Your task to perform on an android device: Look up the top rated headphones on Amazon. Image 0: 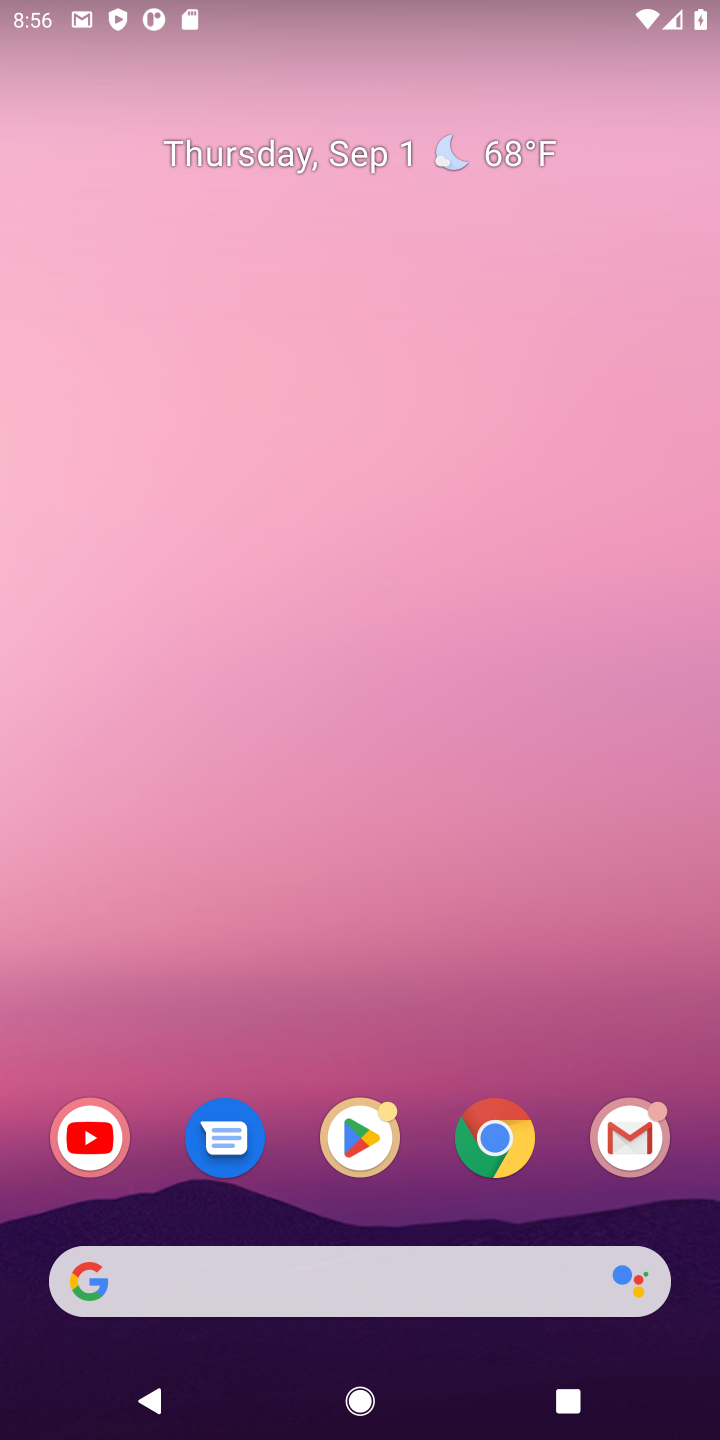
Step 0: click (500, 1162)
Your task to perform on an android device: Look up the top rated headphones on Amazon. Image 1: 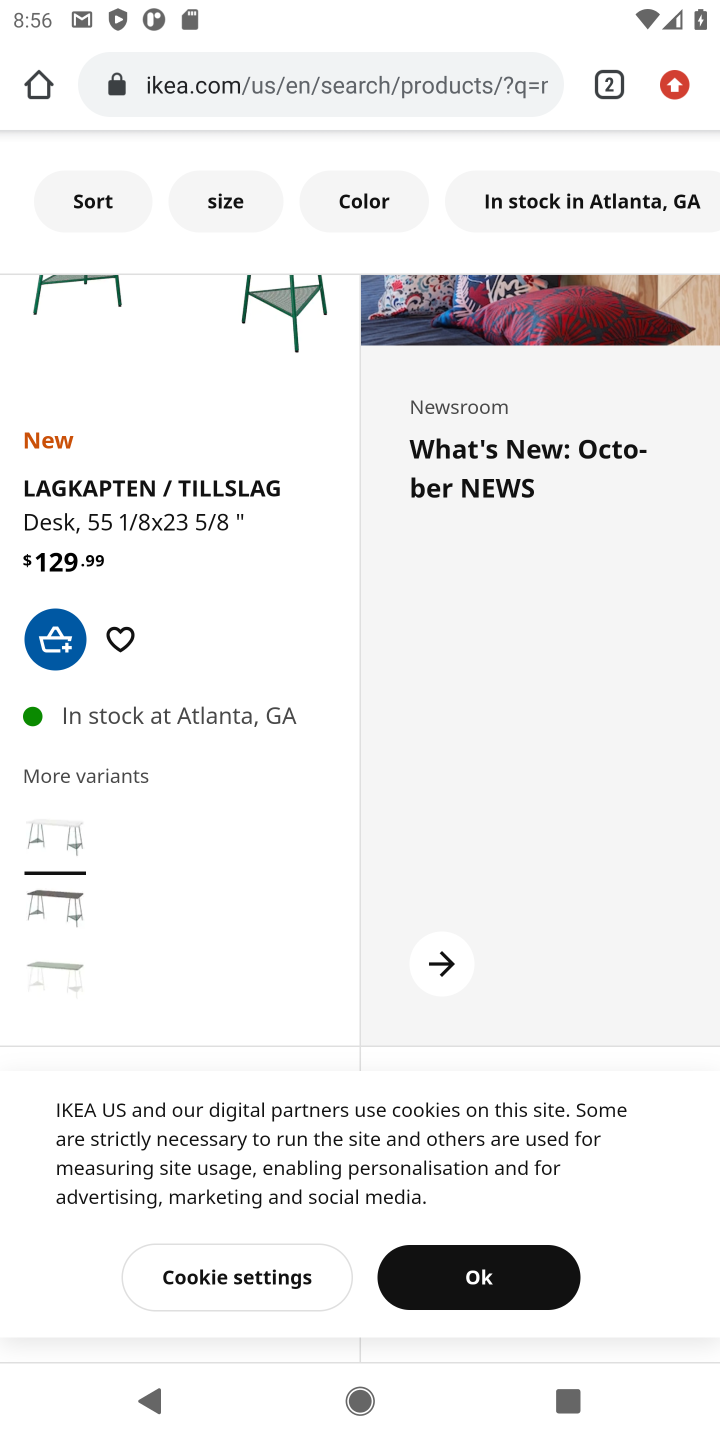
Step 1: click (611, 80)
Your task to perform on an android device: Look up the top rated headphones on Amazon. Image 2: 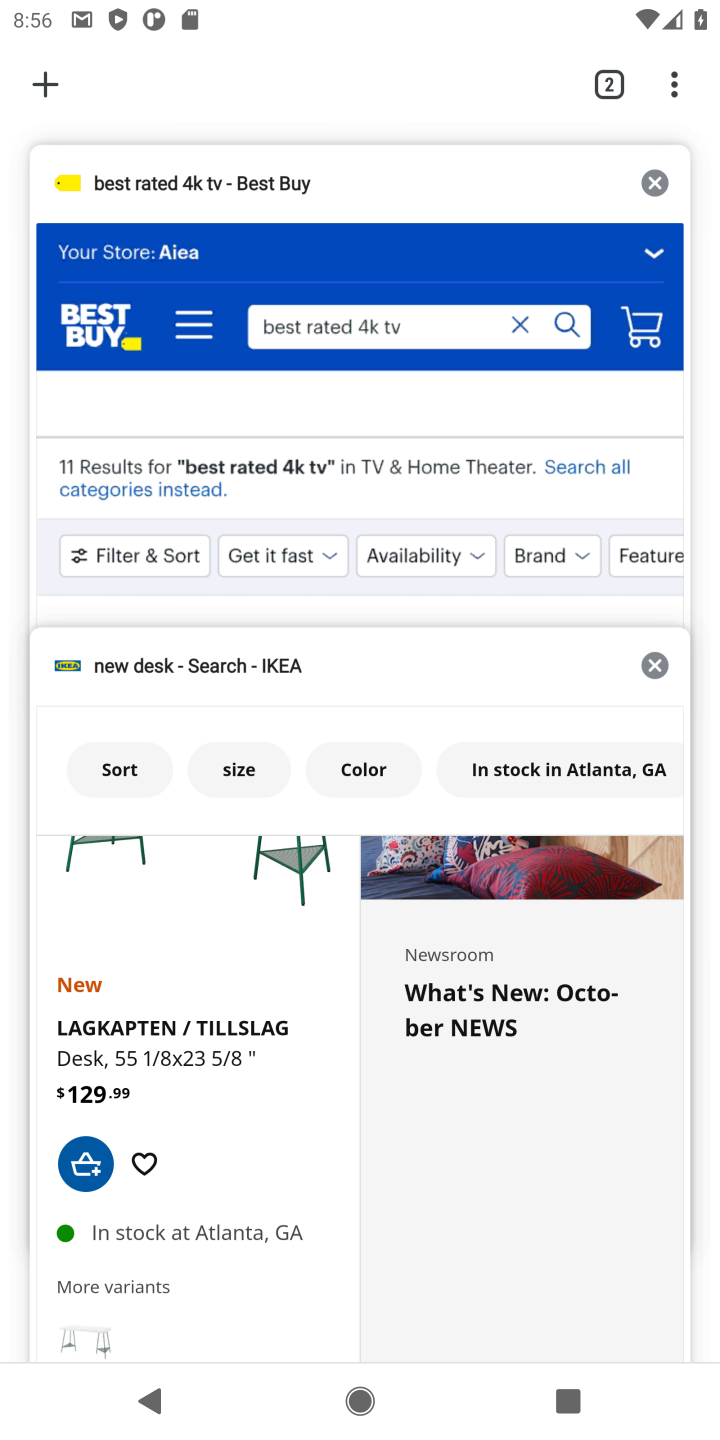
Step 2: click (48, 87)
Your task to perform on an android device: Look up the top rated headphones on Amazon. Image 3: 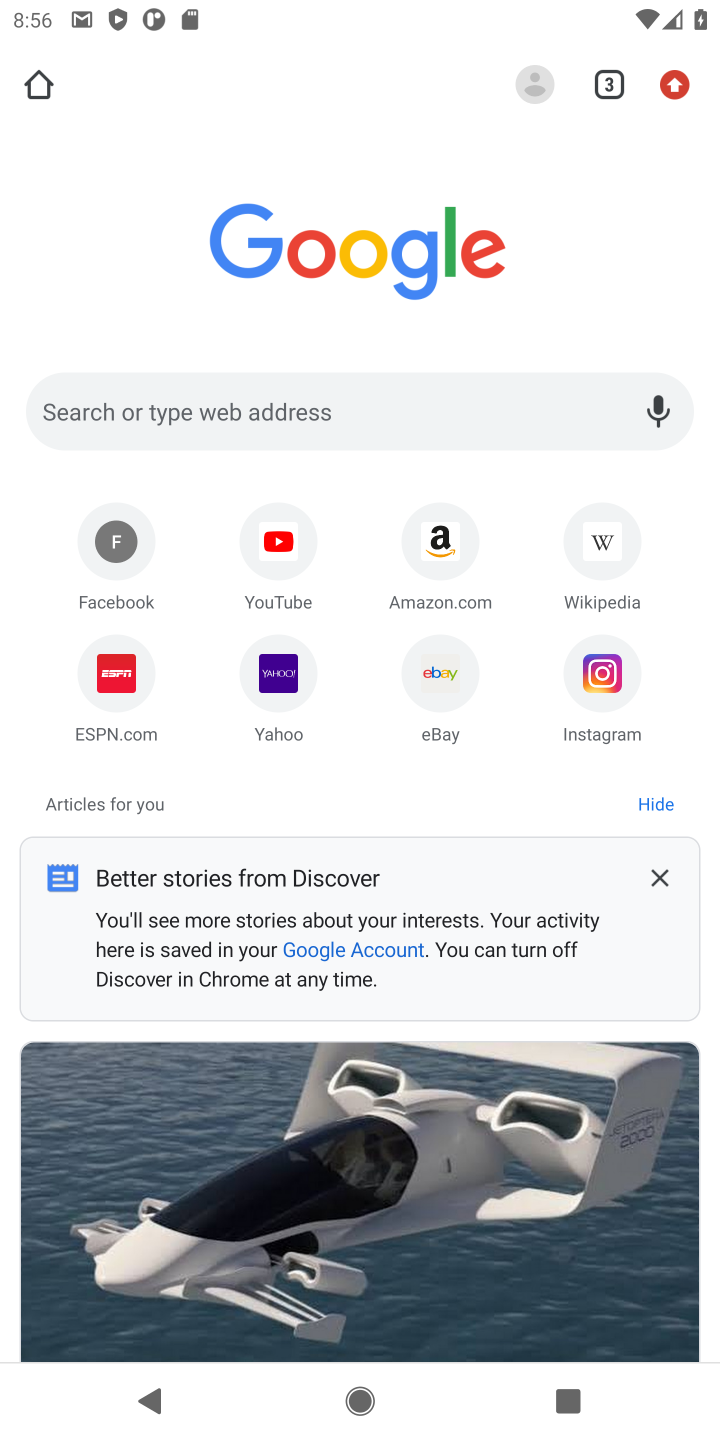
Step 3: click (419, 551)
Your task to perform on an android device: Look up the top rated headphones on Amazon. Image 4: 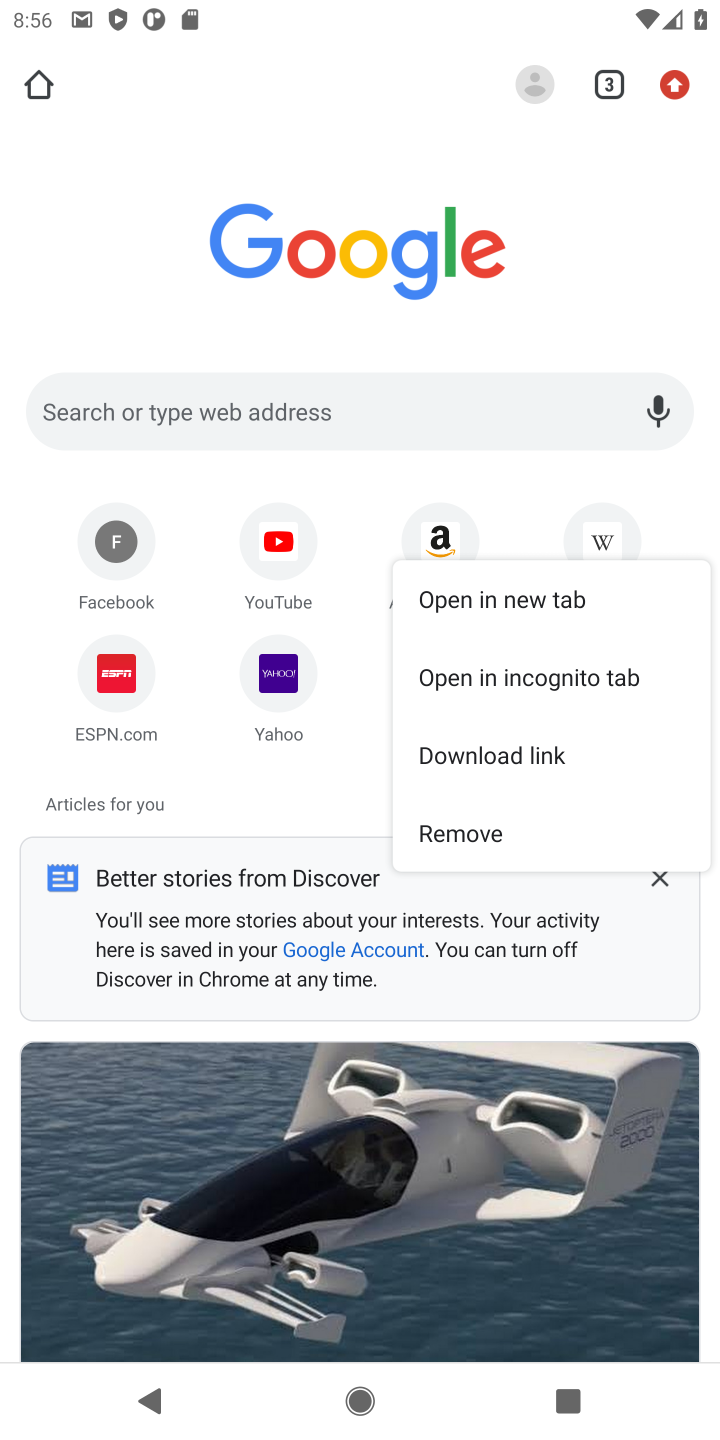
Step 4: click (448, 548)
Your task to perform on an android device: Look up the top rated headphones on Amazon. Image 5: 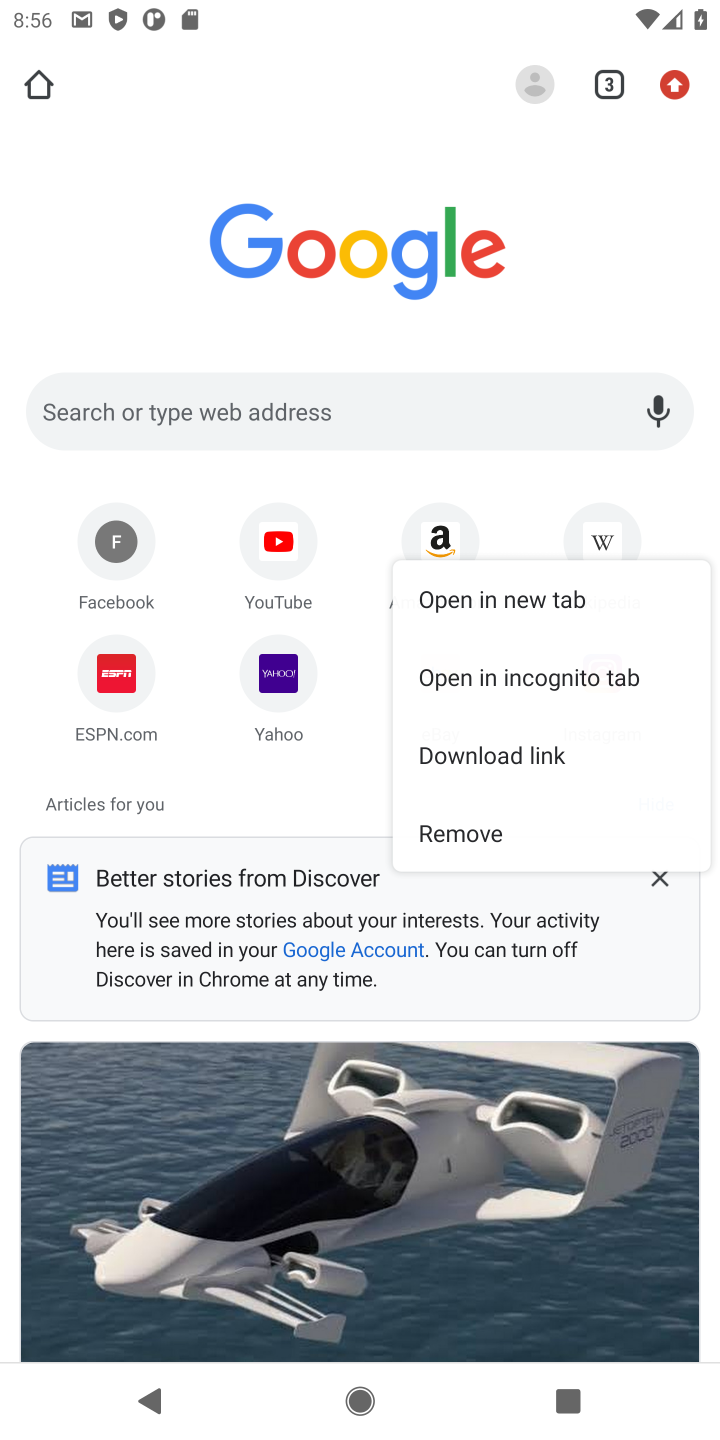
Step 5: click (448, 548)
Your task to perform on an android device: Look up the top rated headphones on Amazon. Image 6: 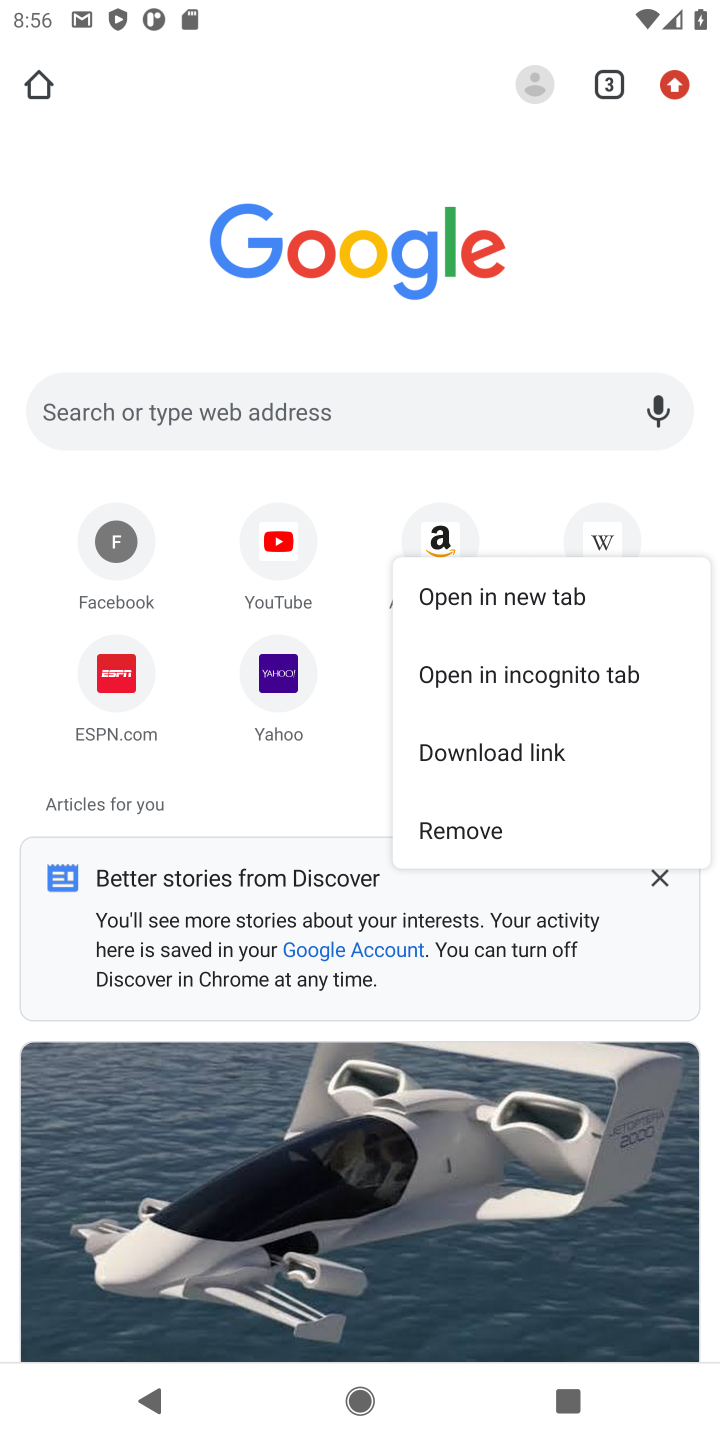
Step 6: click (445, 543)
Your task to perform on an android device: Look up the top rated headphones on Amazon. Image 7: 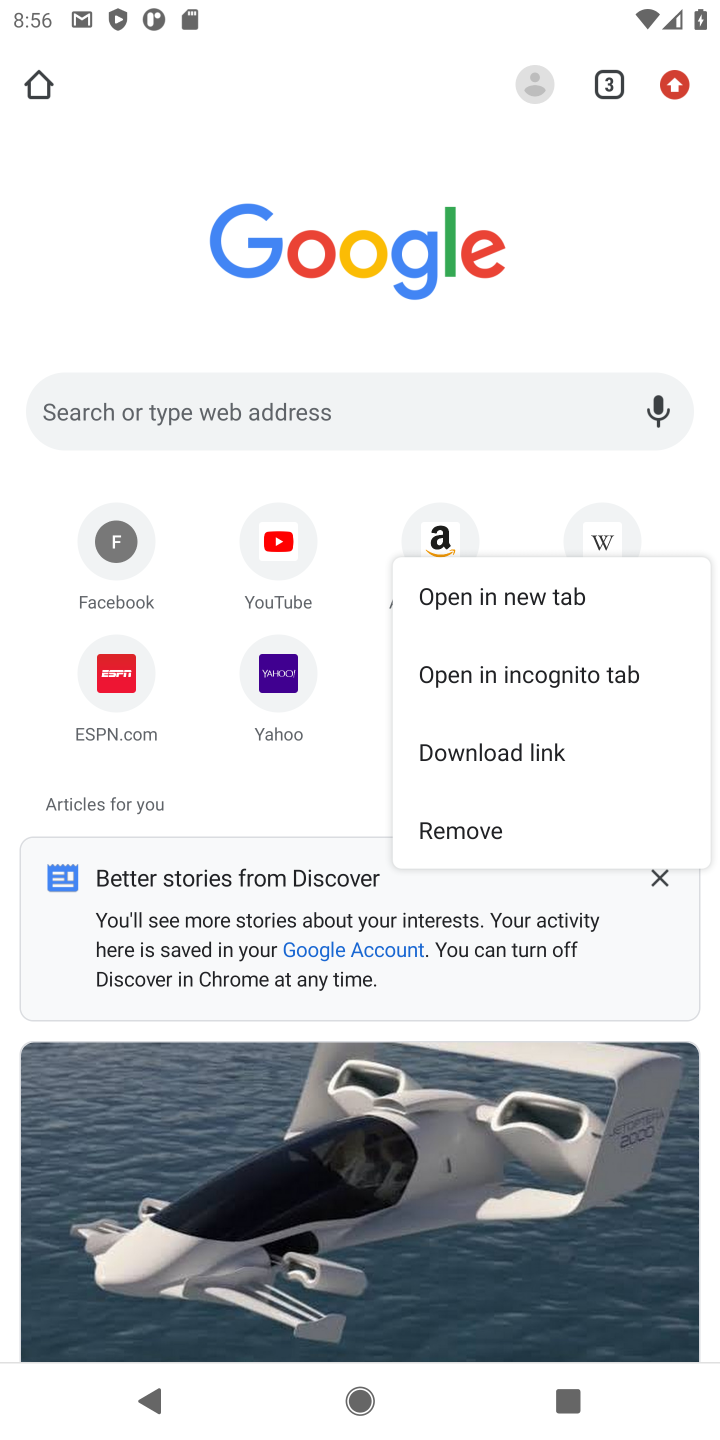
Step 7: click (445, 543)
Your task to perform on an android device: Look up the top rated headphones on Amazon. Image 8: 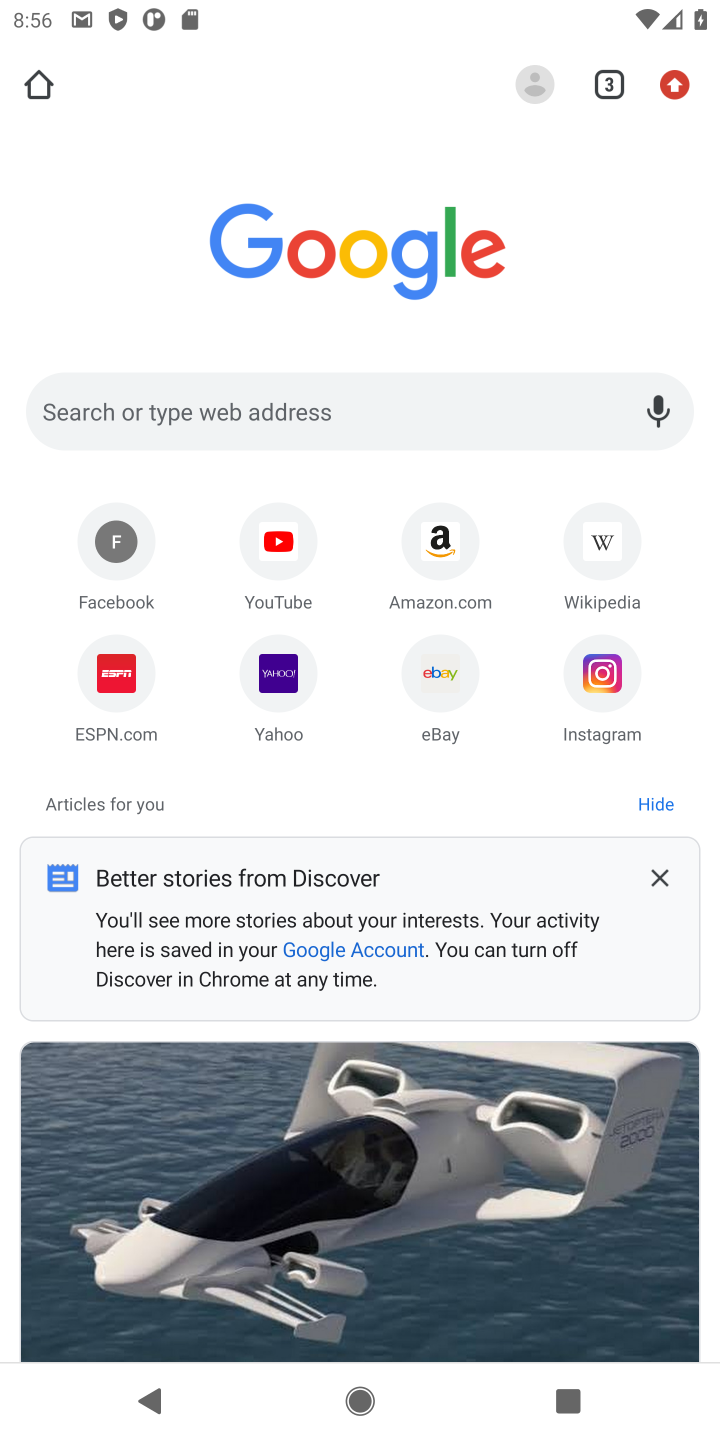
Step 8: click (445, 543)
Your task to perform on an android device: Look up the top rated headphones on Amazon. Image 9: 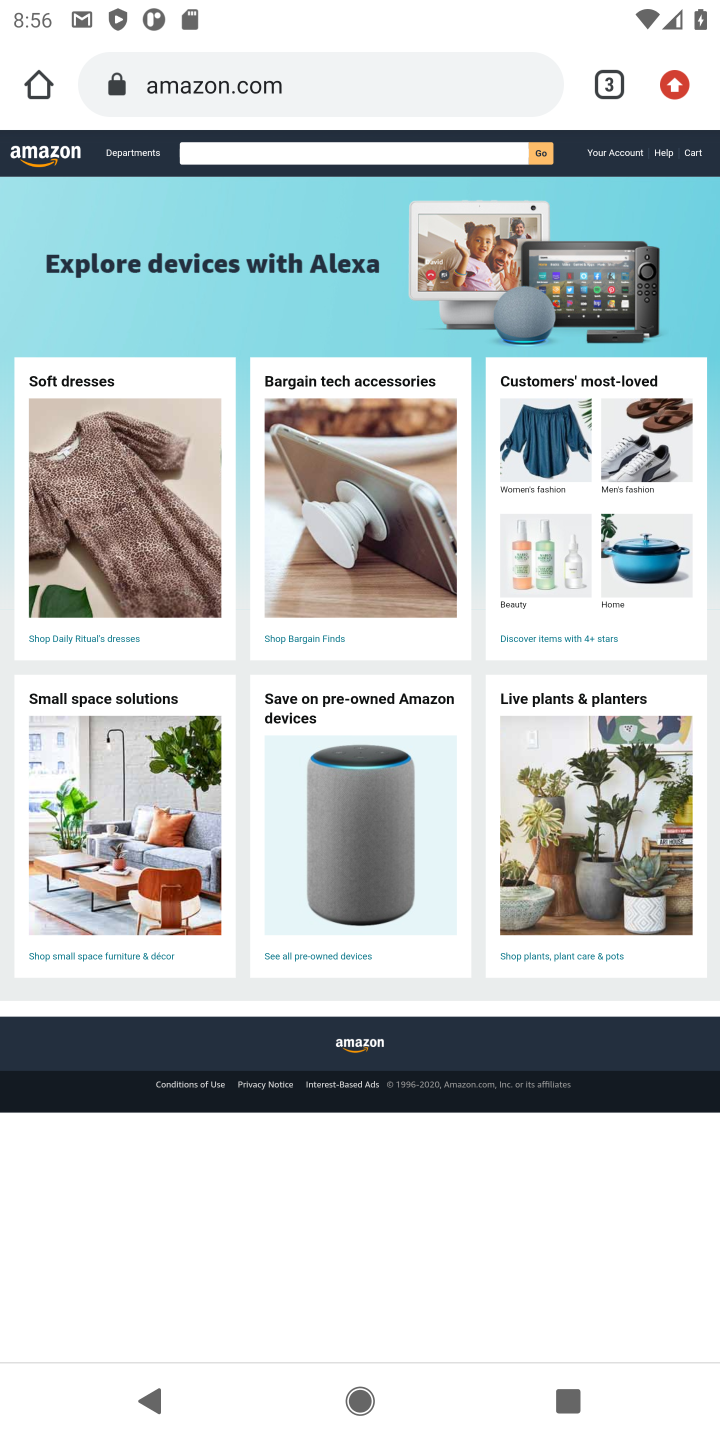
Step 9: click (374, 155)
Your task to perform on an android device: Look up the top rated headphones on Amazon. Image 10: 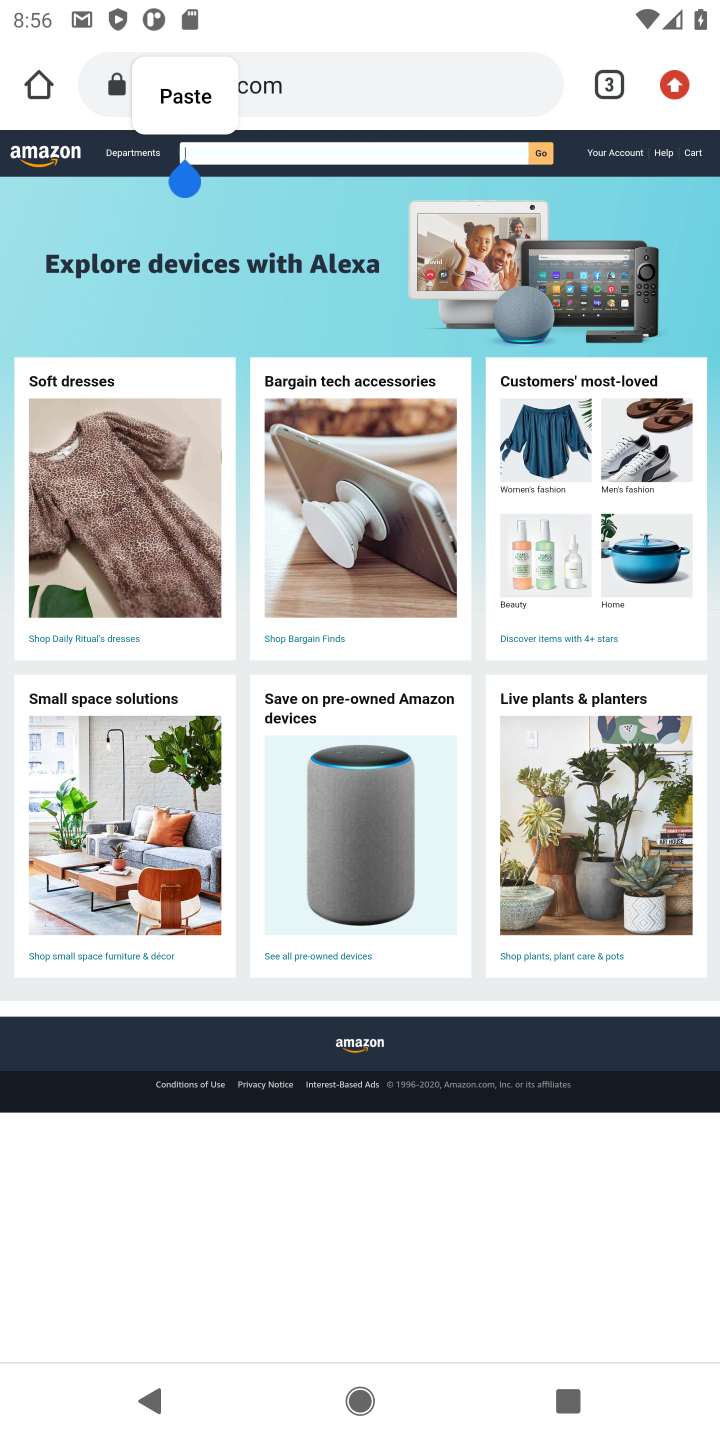
Step 10: type "headphones"
Your task to perform on an android device: Look up the top rated headphones on Amazon. Image 11: 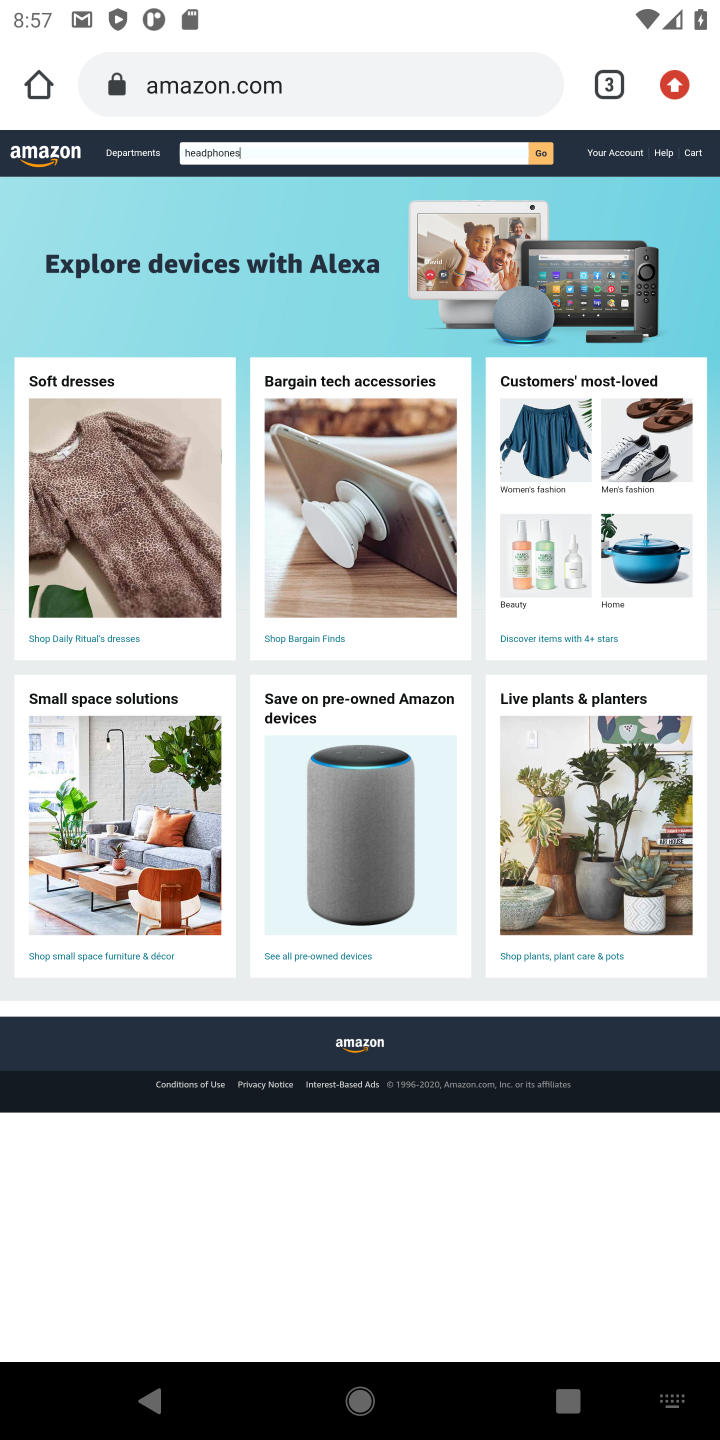
Step 11: click (542, 160)
Your task to perform on an android device: Look up the top rated headphones on Amazon. Image 12: 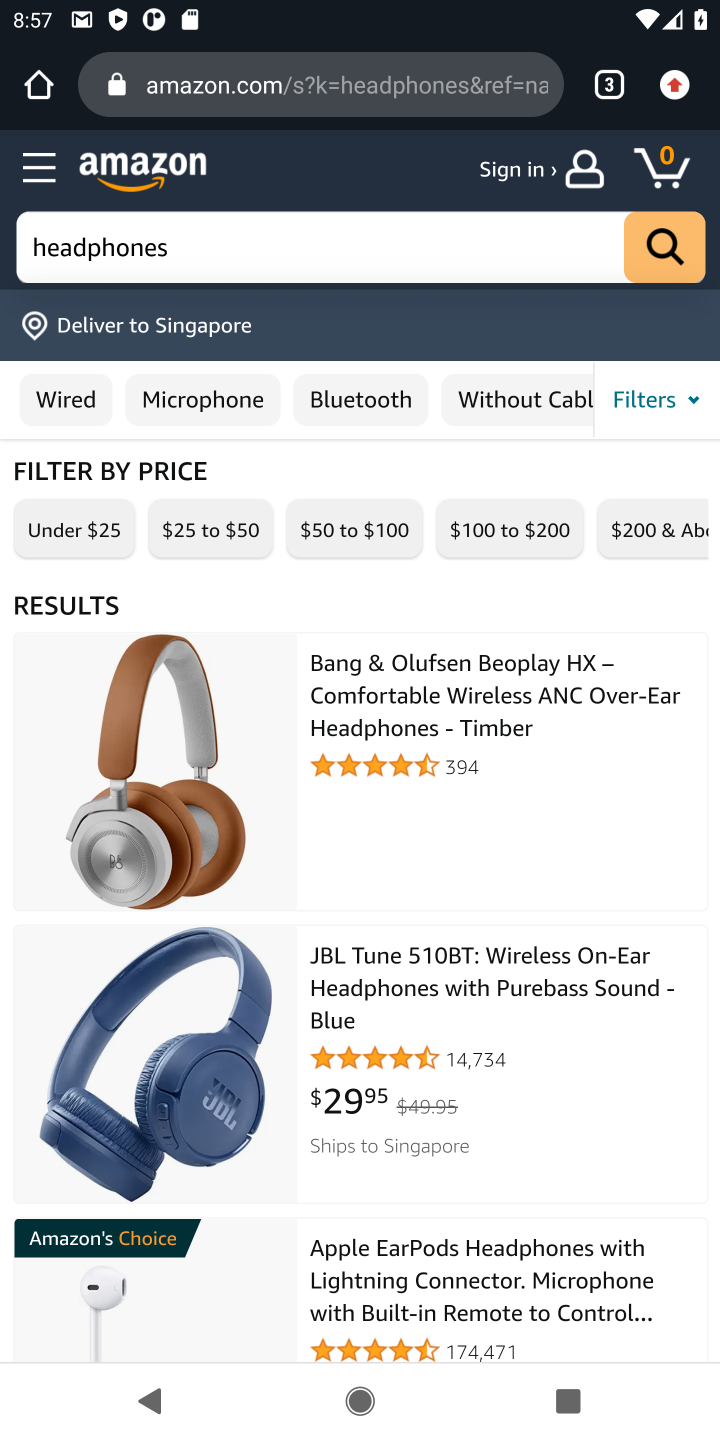
Step 12: click (668, 403)
Your task to perform on an android device: Look up the top rated headphones on Amazon. Image 13: 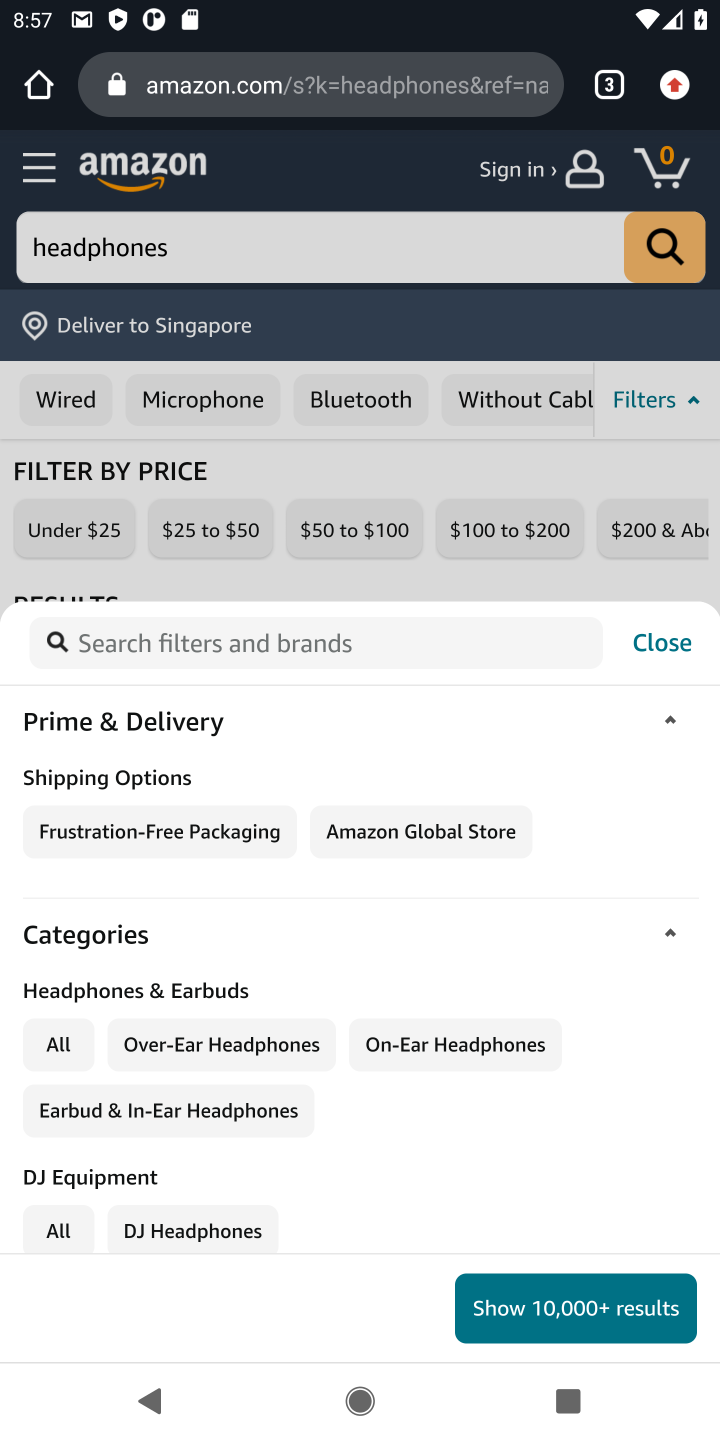
Step 13: drag from (464, 1221) to (375, 441)
Your task to perform on an android device: Look up the top rated headphones on Amazon. Image 14: 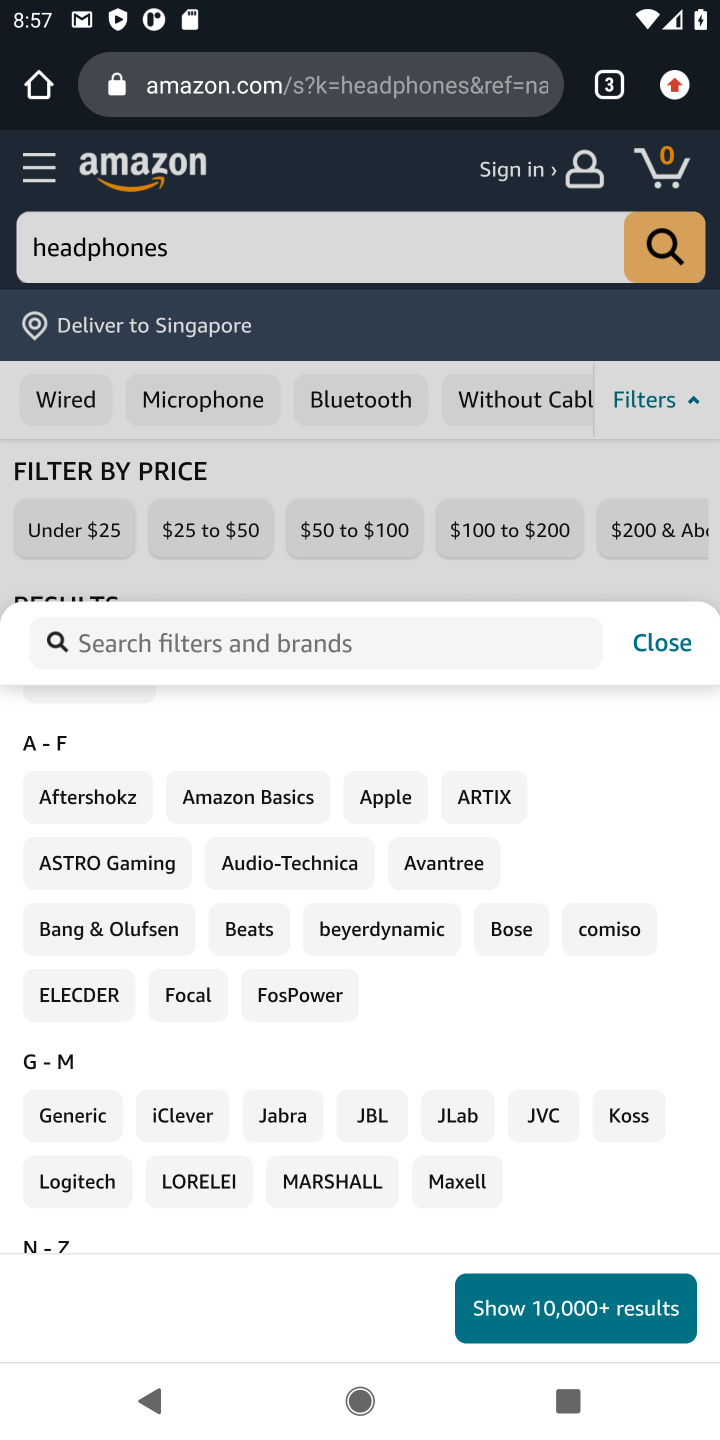
Step 14: drag from (543, 1191) to (393, 448)
Your task to perform on an android device: Look up the top rated headphones on Amazon. Image 15: 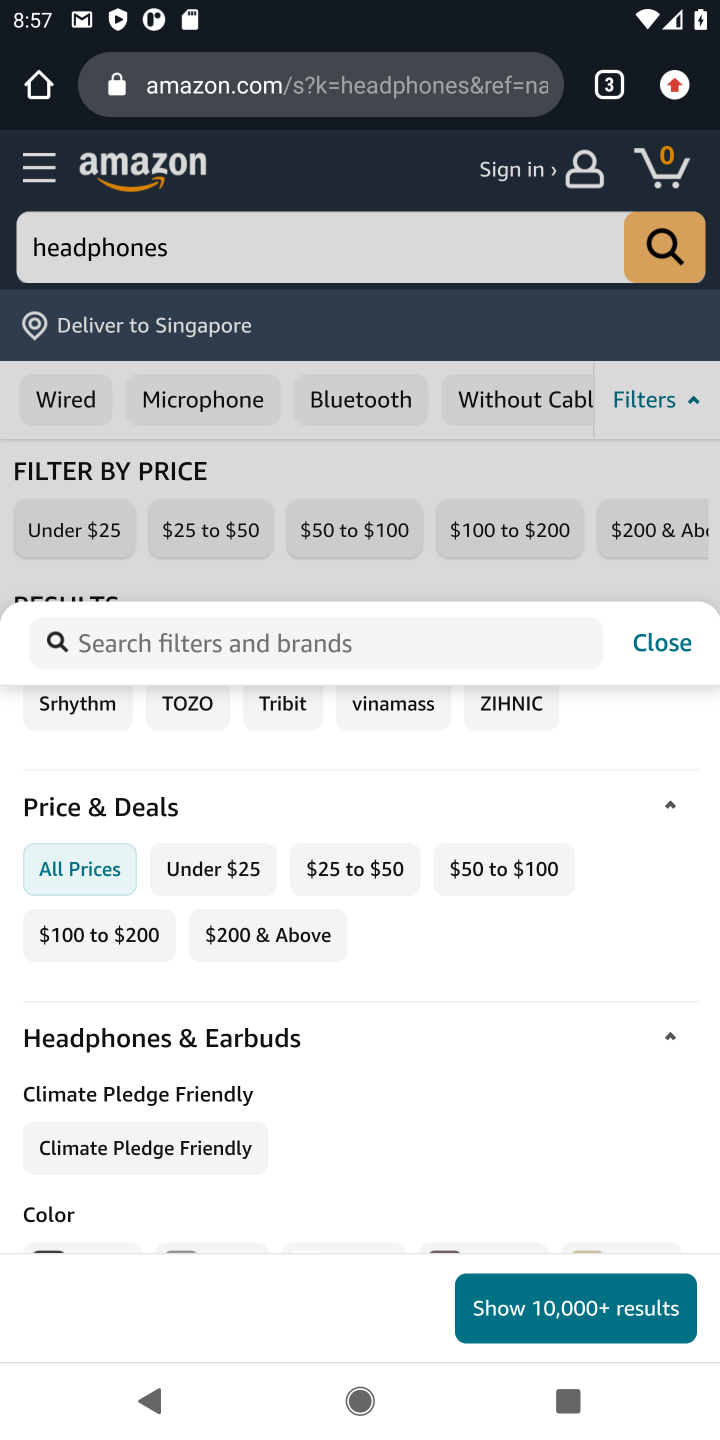
Step 15: drag from (530, 1165) to (358, 451)
Your task to perform on an android device: Look up the top rated headphones on Amazon. Image 16: 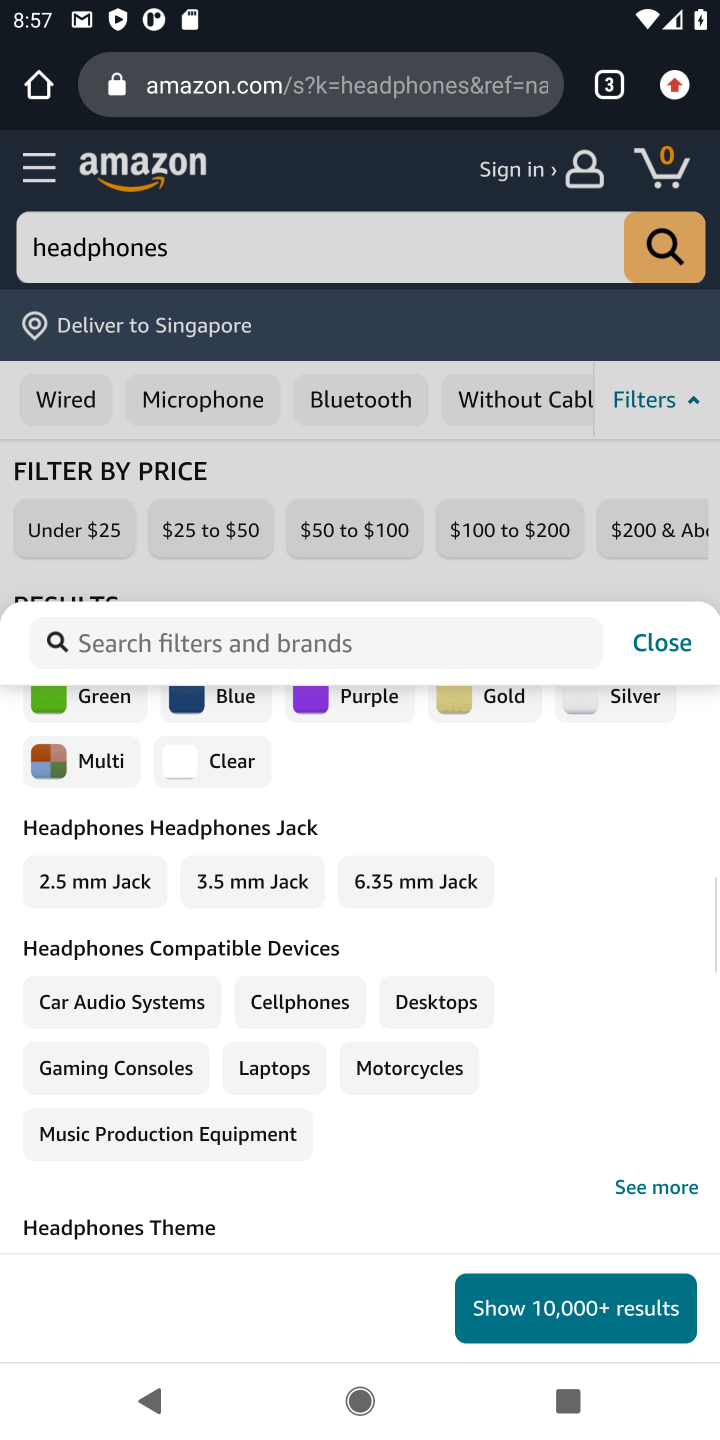
Step 16: click (425, 1293)
Your task to perform on an android device: Look up the top rated headphones on Amazon. Image 17: 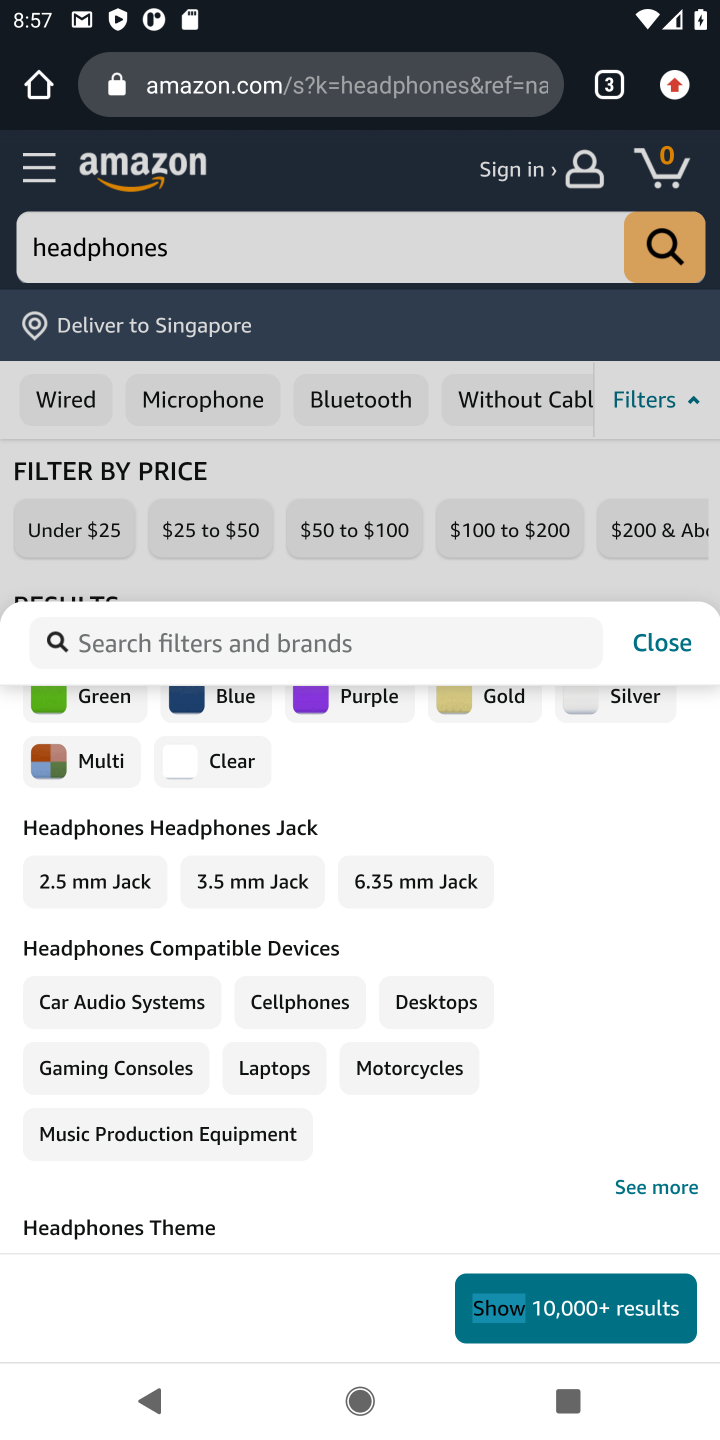
Step 17: drag from (419, 1210) to (364, 782)
Your task to perform on an android device: Look up the top rated headphones on Amazon. Image 18: 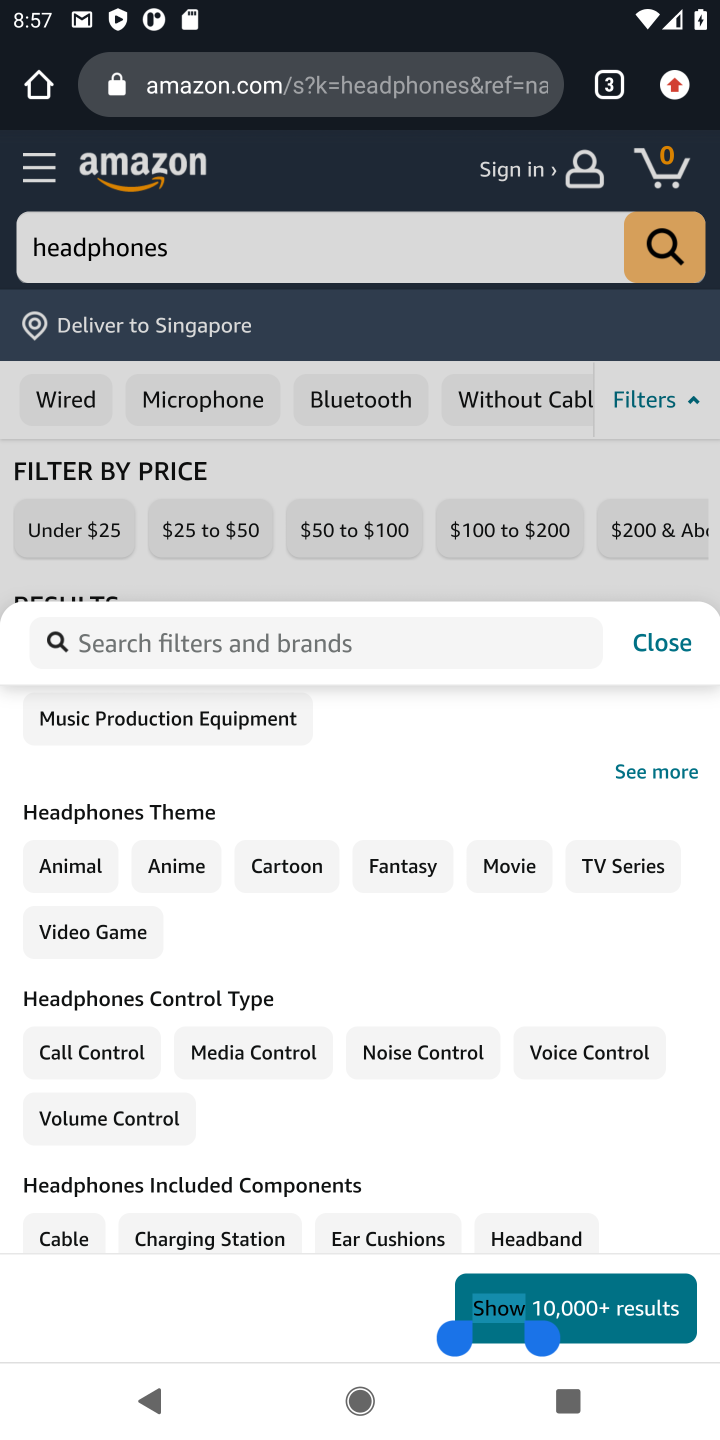
Step 18: drag from (634, 1179) to (553, 732)
Your task to perform on an android device: Look up the top rated headphones on Amazon. Image 19: 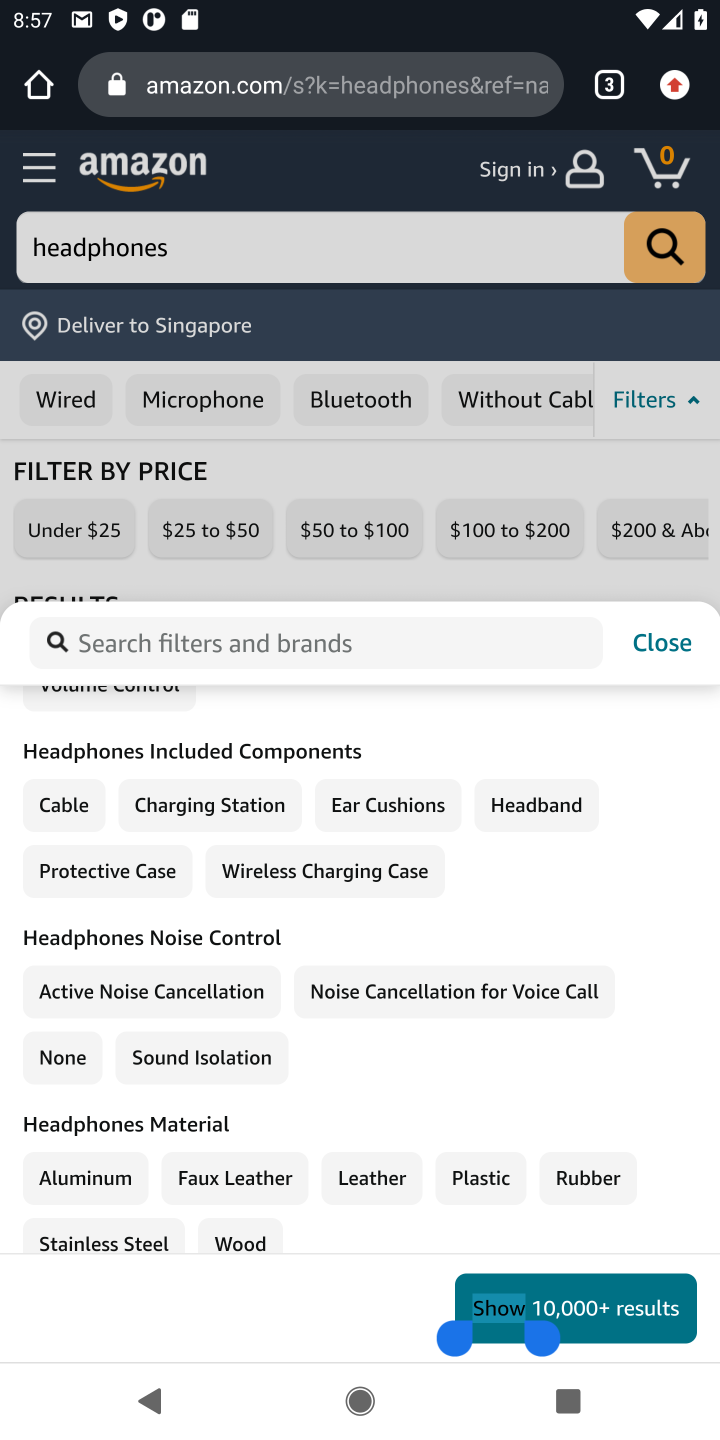
Step 19: drag from (594, 1101) to (562, 665)
Your task to perform on an android device: Look up the top rated headphones on Amazon. Image 20: 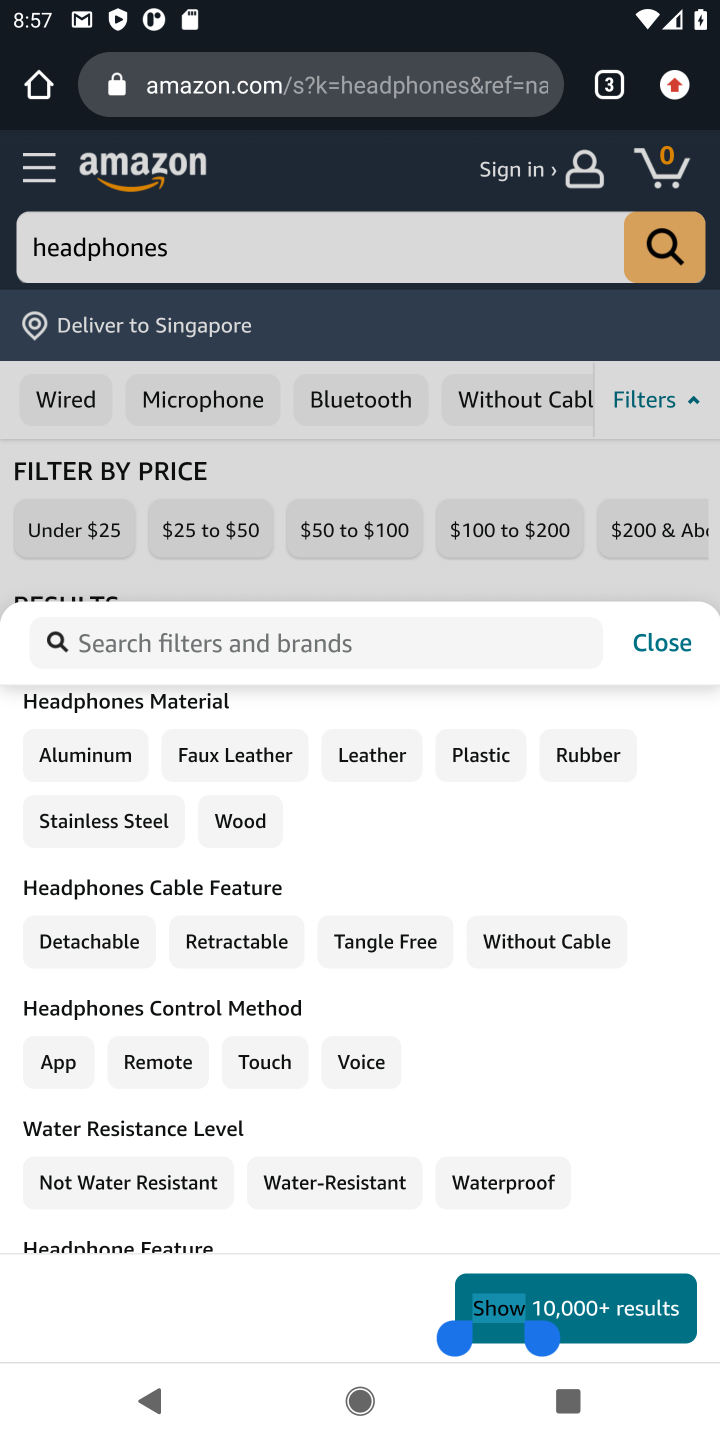
Step 20: drag from (634, 1156) to (503, 675)
Your task to perform on an android device: Look up the top rated headphones on Amazon. Image 21: 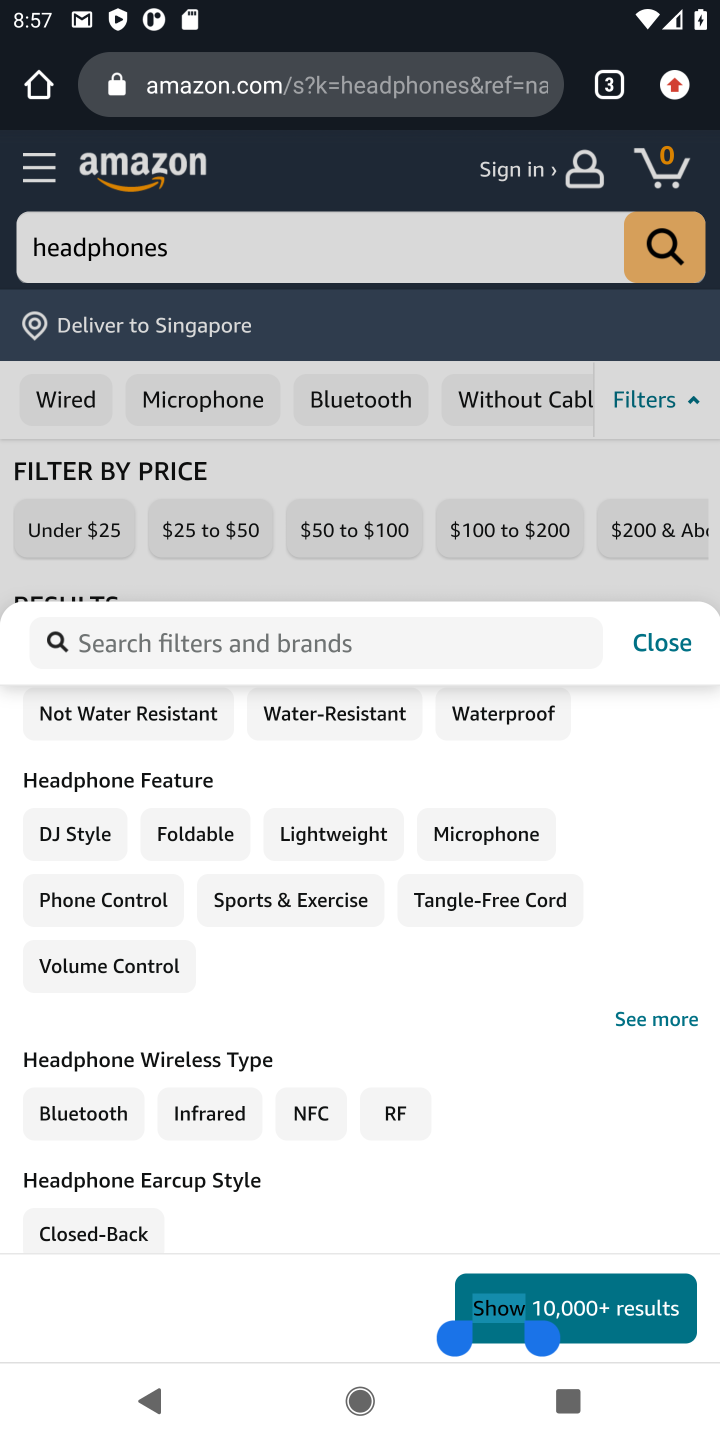
Step 21: drag from (541, 1193) to (443, 649)
Your task to perform on an android device: Look up the top rated headphones on Amazon. Image 22: 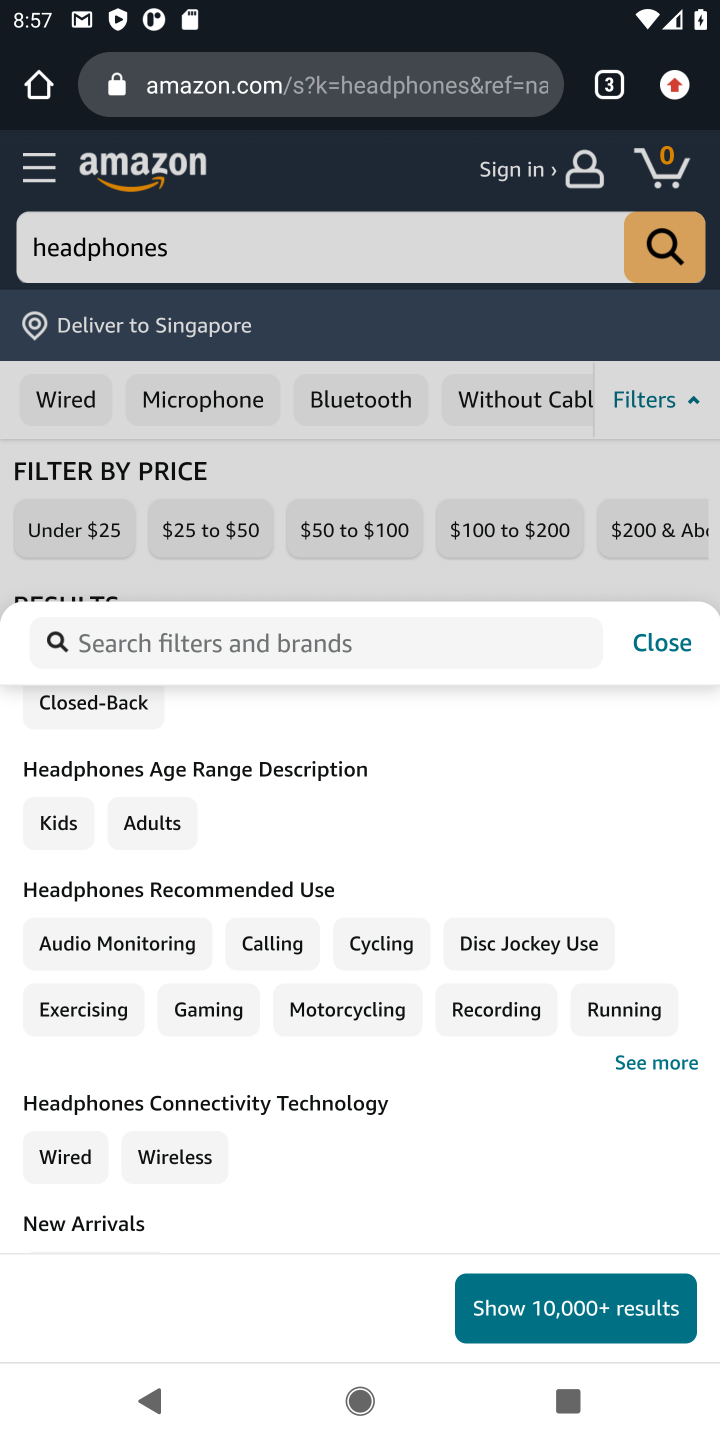
Step 22: drag from (440, 1145) to (362, 756)
Your task to perform on an android device: Look up the top rated headphones on Amazon. Image 23: 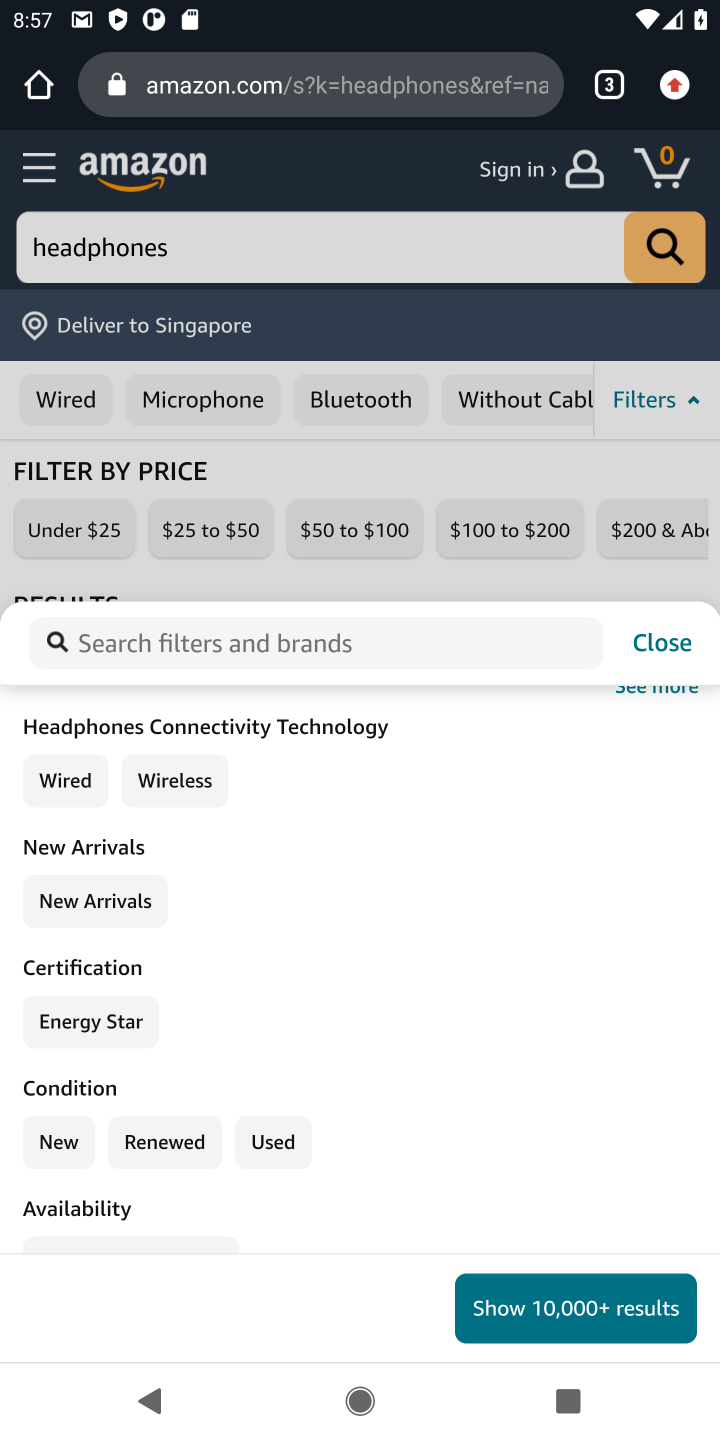
Step 23: drag from (391, 1099) to (317, 759)
Your task to perform on an android device: Look up the top rated headphones on Amazon. Image 24: 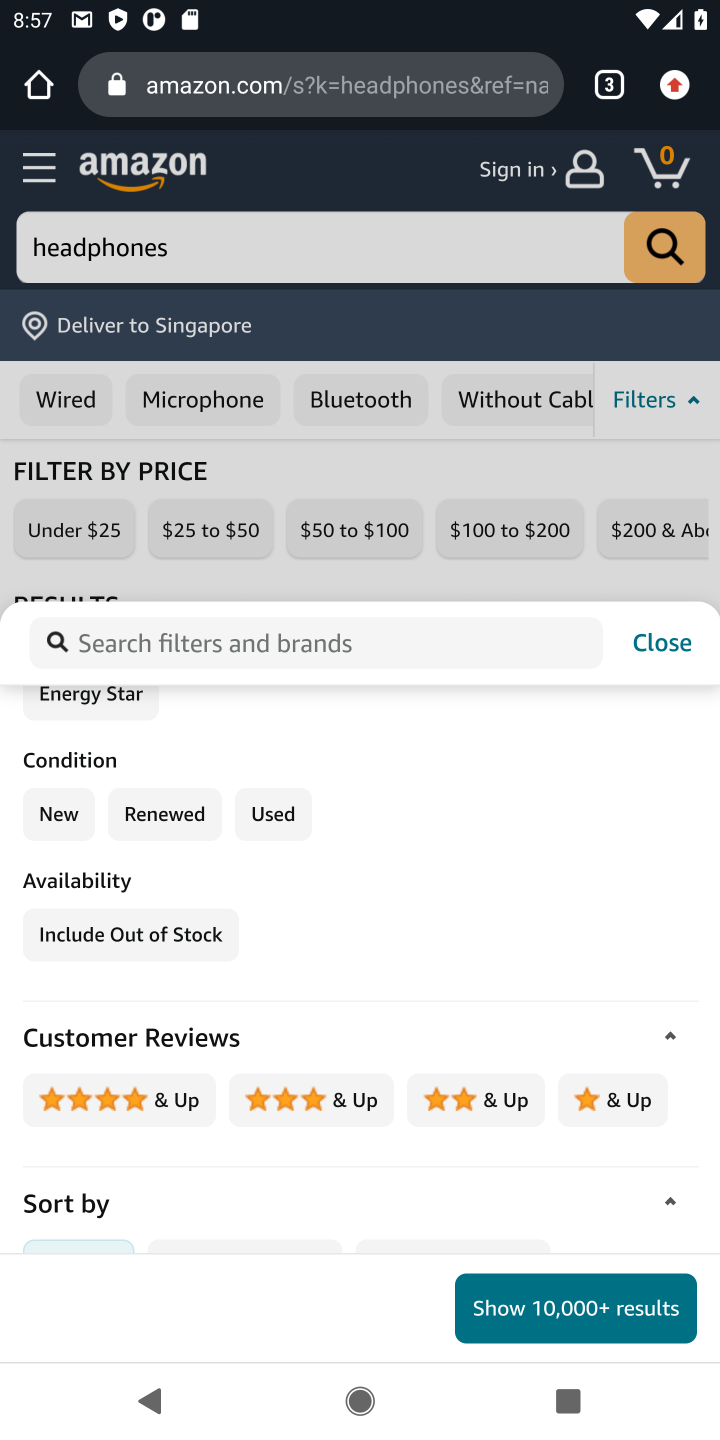
Step 24: drag from (265, 980) to (249, 739)
Your task to perform on an android device: Look up the top rated headphones on Amazon. Image 25: 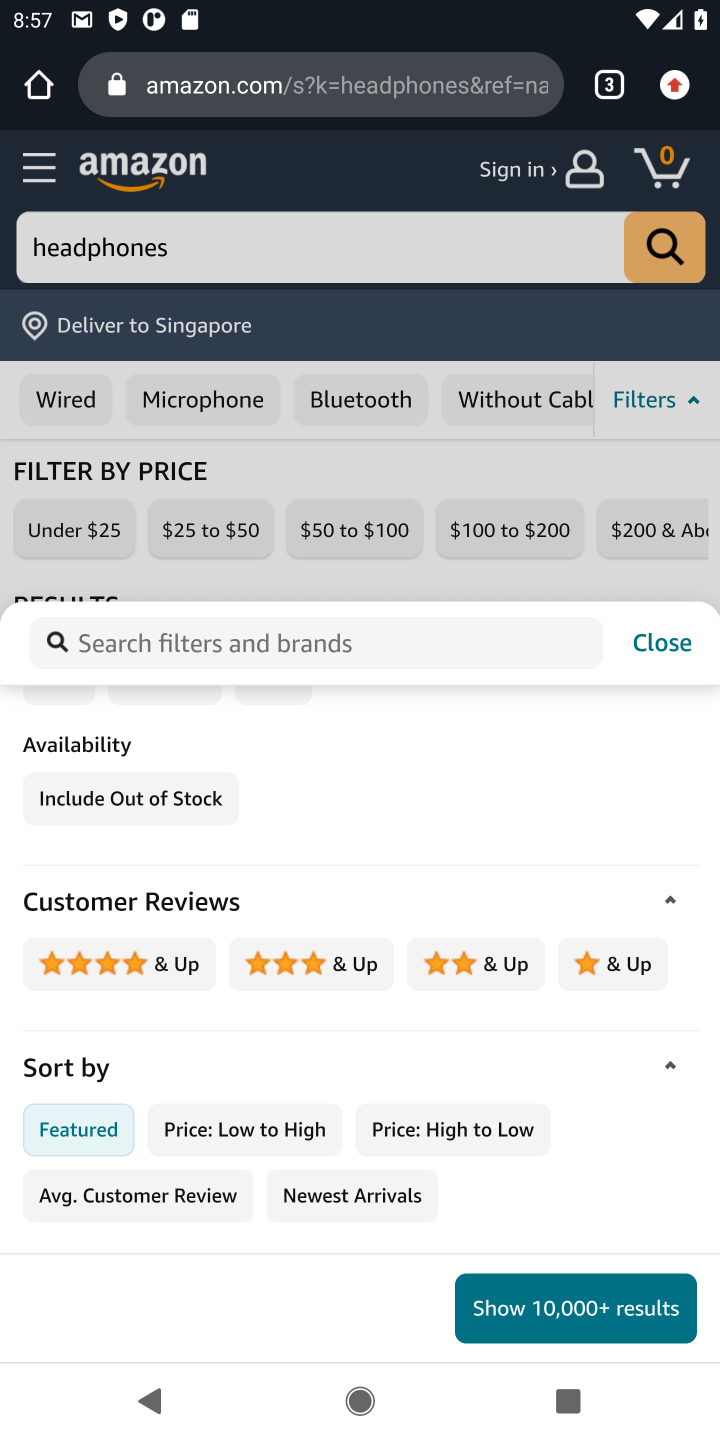
Step 25: click (92, 959)
Your task to perform on an android device: Look up the top rated headphones on Amazon. Image 26: 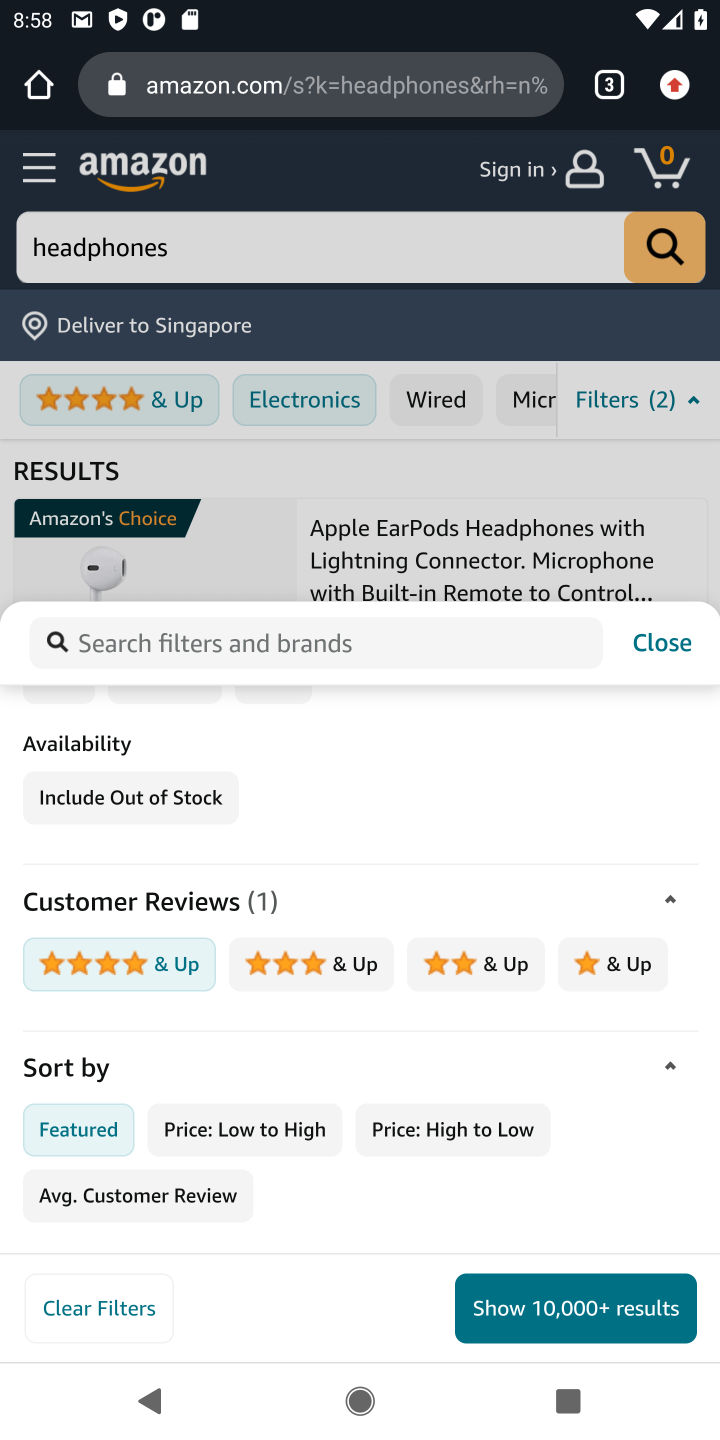
Step 26: click (574, 1317)
Your task to perform on an android device: Look up the top rated headphones on Amazon. Image 27: 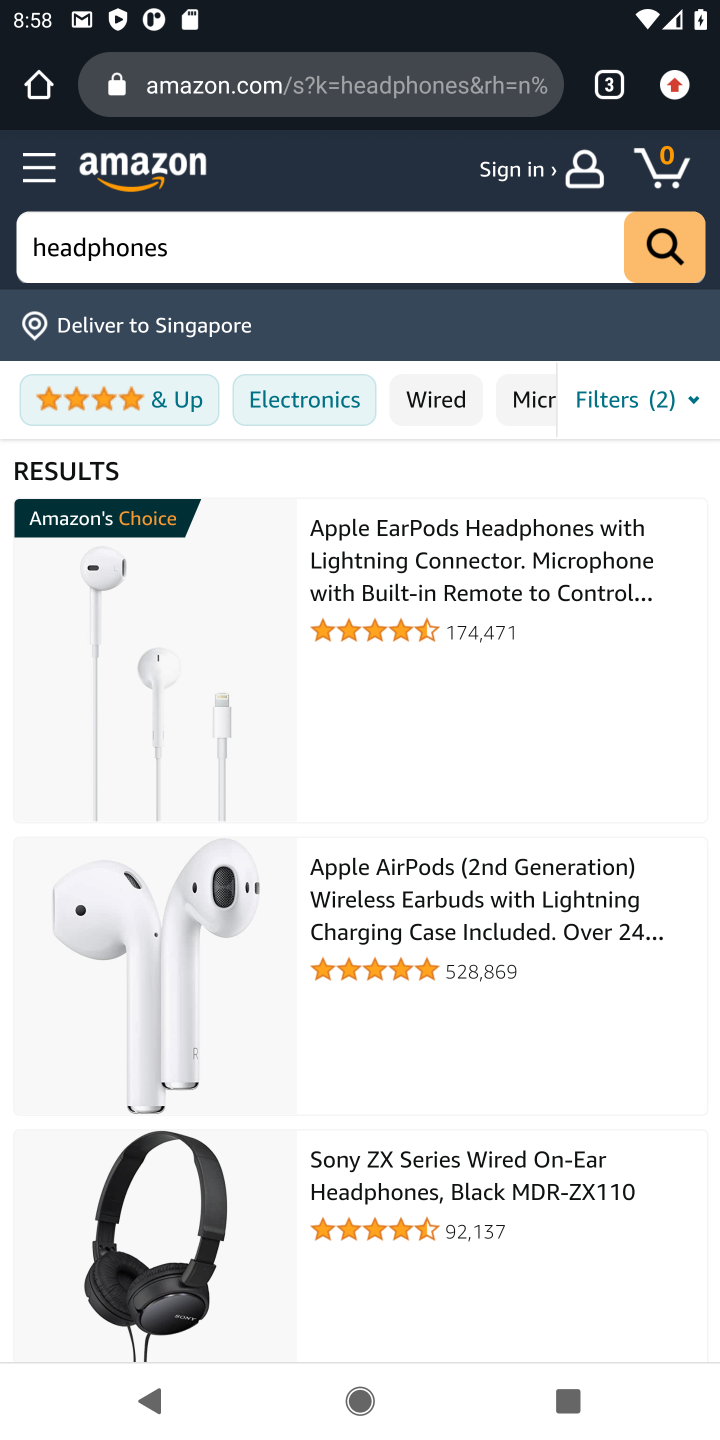
Step 27: task complete